Your task to perform on an android device: Is it going to rain today? Image 0: 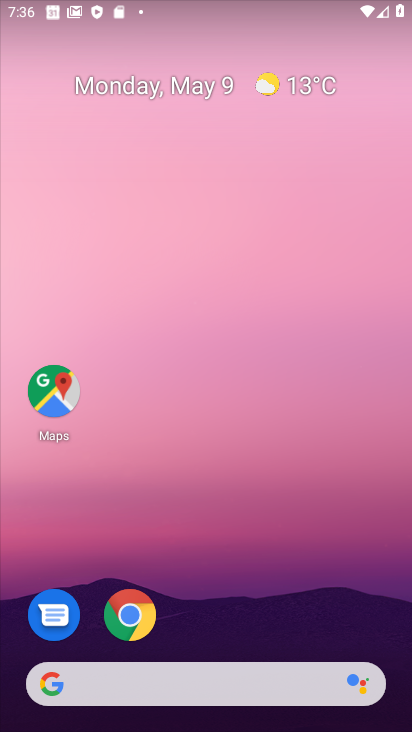
Step 0: click (318, 98)
Your task to perform on an android device: Is it going to rain today? Image 1: 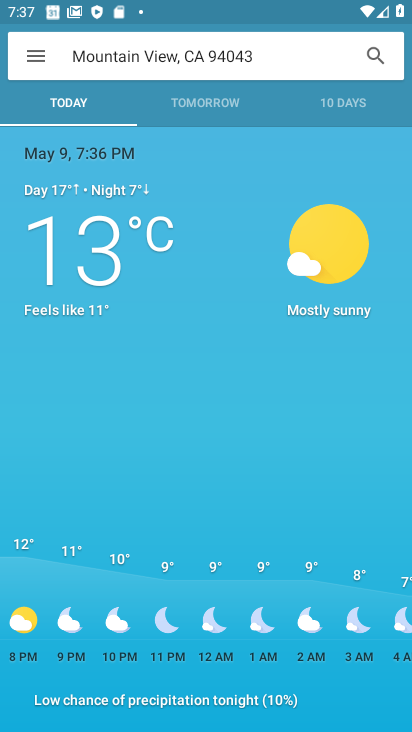
Step 1: task complete